Your task to perform on an android device: turn on translation in the chrome app Image 0: 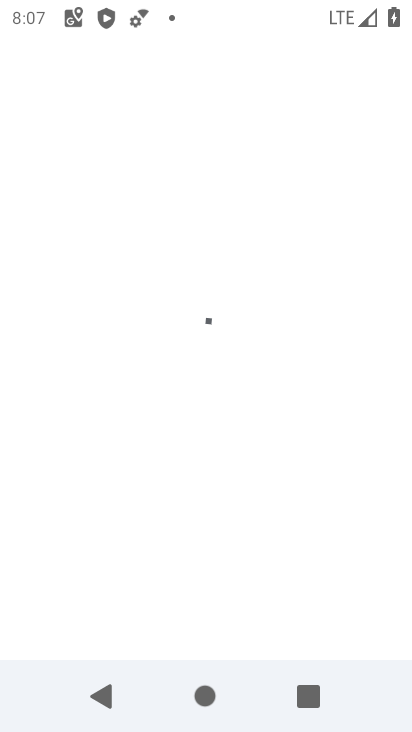
Step 0: press back button
Your task to perform on an android device: turn on translation in the chrome app Image 1: 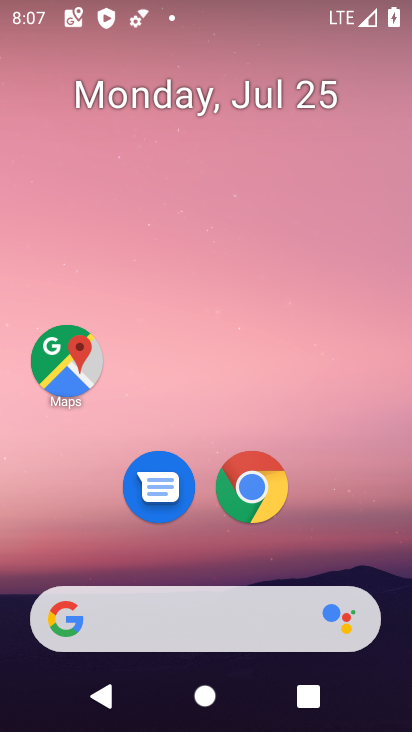
Step 1: click (238, 496)
Your task to perform on an android device: turn on translation in the chrome app Image 2: 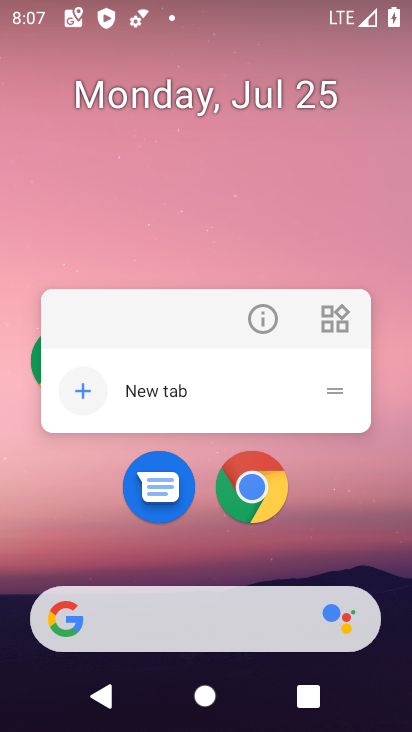
Step 2: click (262, 505)
Your task to perform on an android device: turn on translation in the chrome app Image 3: 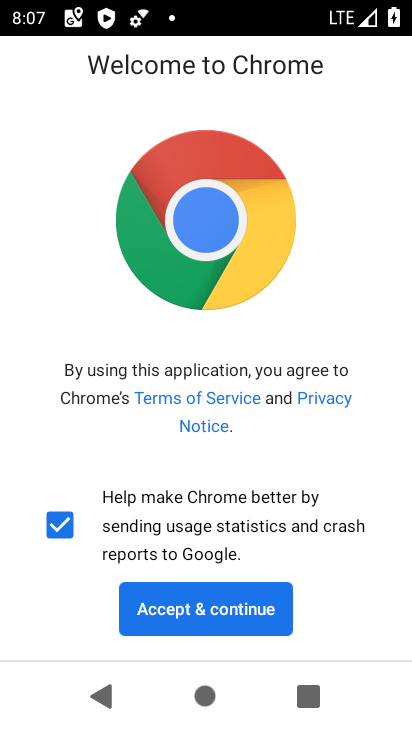
Step 3: click (200, 601)
Your task to perform on an android device: turn on translation in the chrome app Image 4: 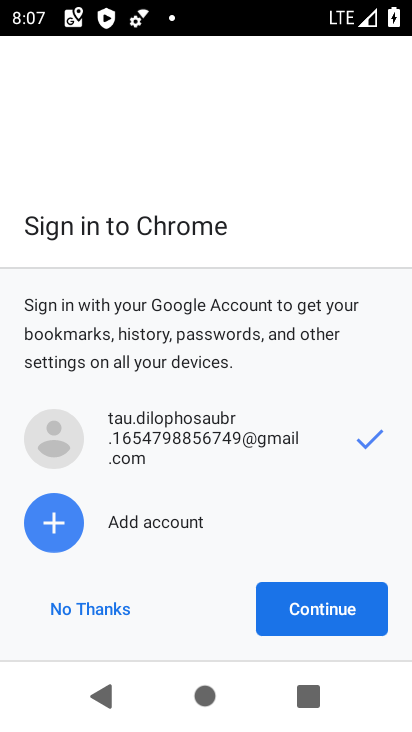
Step 4: click (319, 601)
Your task to perform on an android device: turn on translation in the chrome app Image 5: 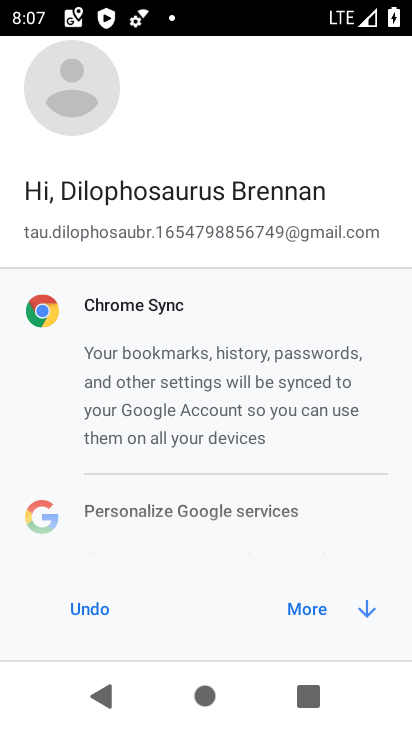
Step 5: click (314, 608)
Your task to perform on an android device: turn on translation in the chrome app Image 6: 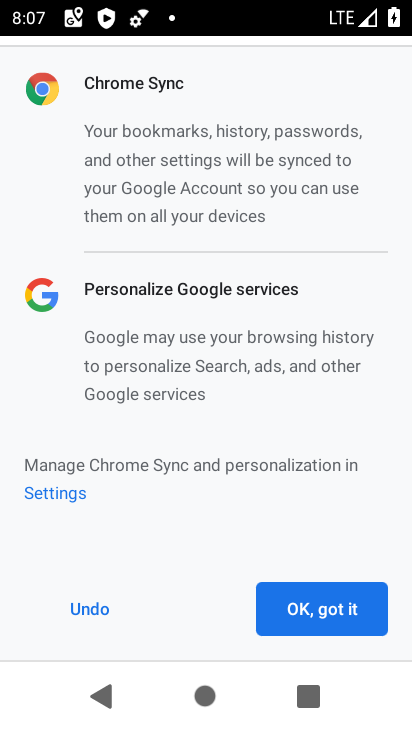
Step 6: click (325, 608)
Your task to perform on an android device: turn on translation in the chrome app Image 7: 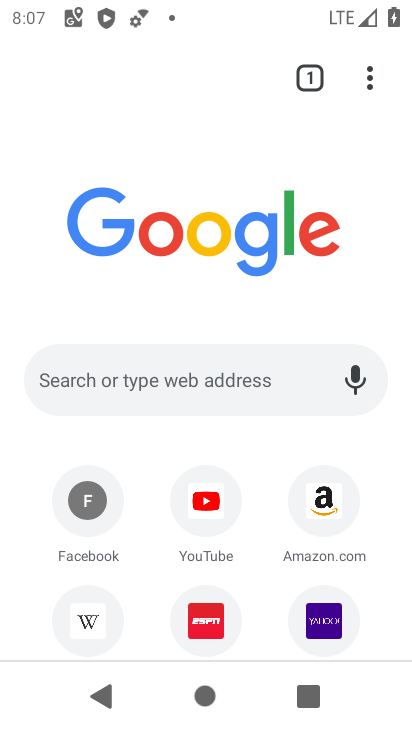
Step 7: drag from (371, 80) to (142, 536)
Your task to perform on an android device: turn on translation in the chrome app Image 8: 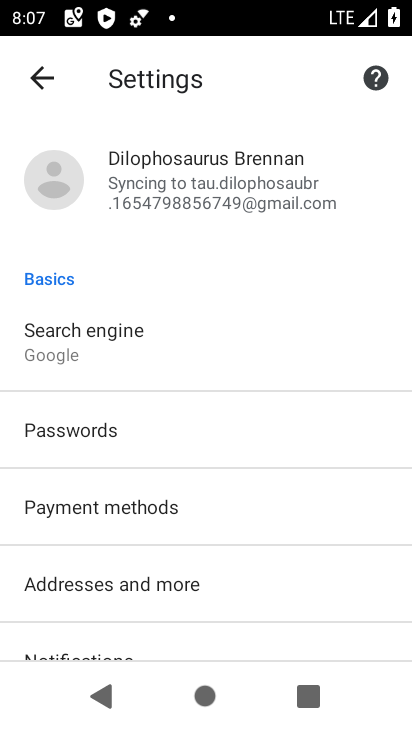
Step 8: drag from (106, 647) to (267, 56)
Your task to perform on an android device: turn on translation in the chrome app Image 9: 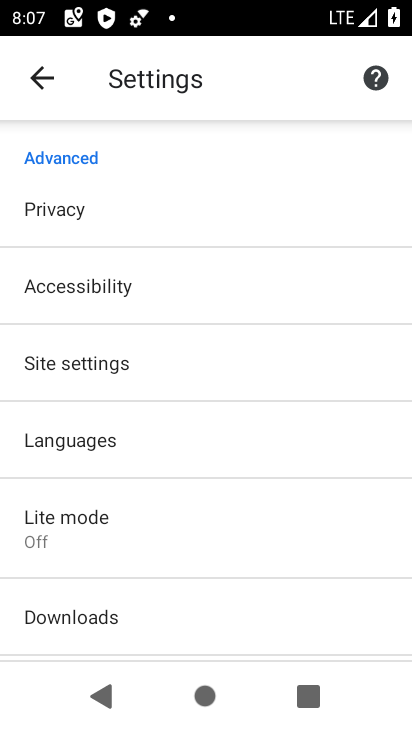
Step 9: click (83, 436)
Your task to perform on an android device: turn on translation in the chrome app Image 10: 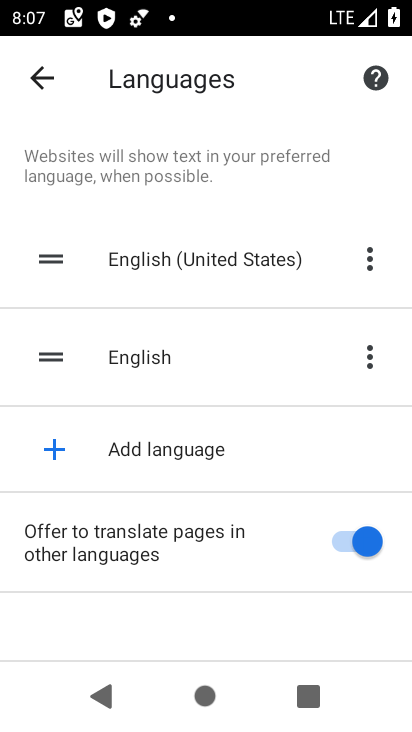
Step 10: task complete